Your task to perform on an android device: Go to Reddit.com Image 0: 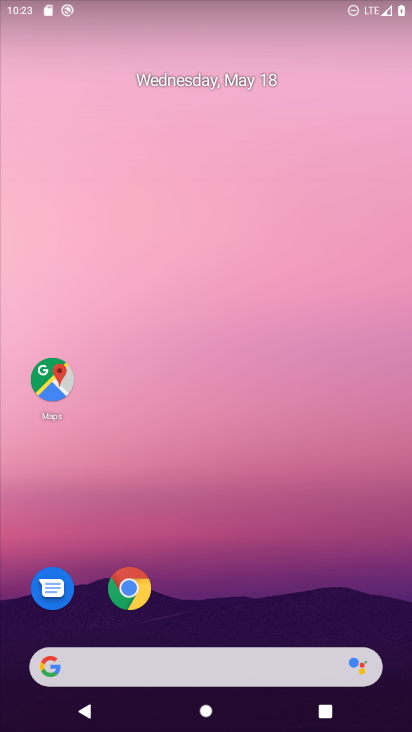
Step 0: click (136, 595)
Your task to perform on an android device: Go to Reddit.com Image 1: 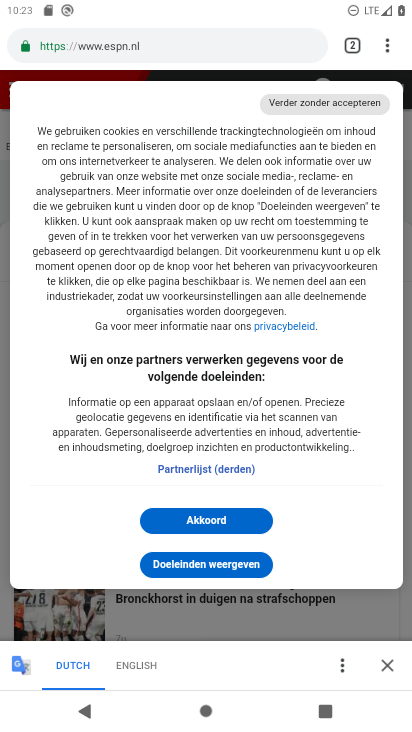
Step 1: click (128, 43)
Your task to perform on an android device: Go to Reddit.com Image 2: 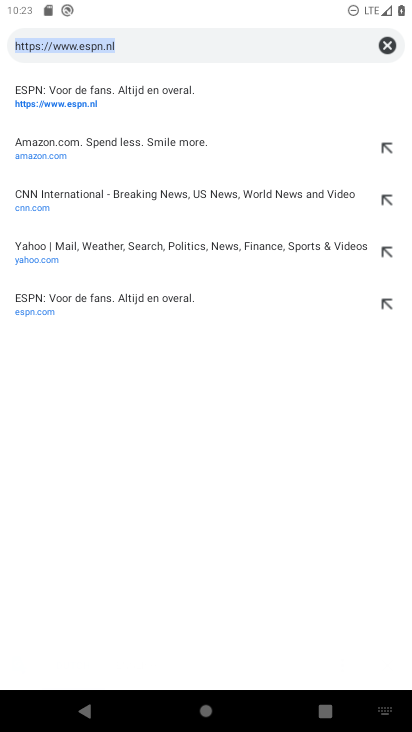
Step 2: click (383, 47)
Your task to perform on an android device: Go to Reddit.com Image 3: 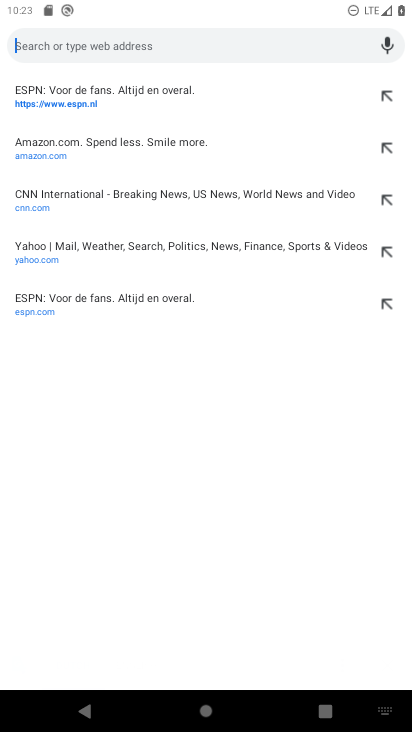
Step 3: click (55, 44)
Your task to perform on an android device: Go to Reddit.com Image 4: 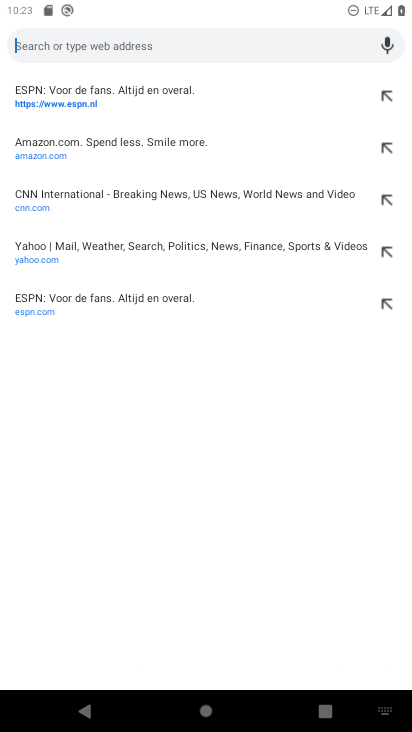
Step 4: type "reddit.com"
Your task to perform on an android device: Go to Reddit.com Image 5: 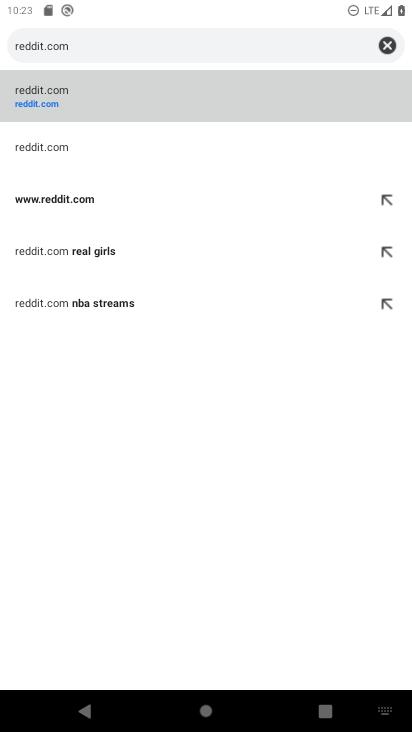
Step 5: click (33, 99)
Your task to perform on an android device: Go to Reddit.com Image 6: 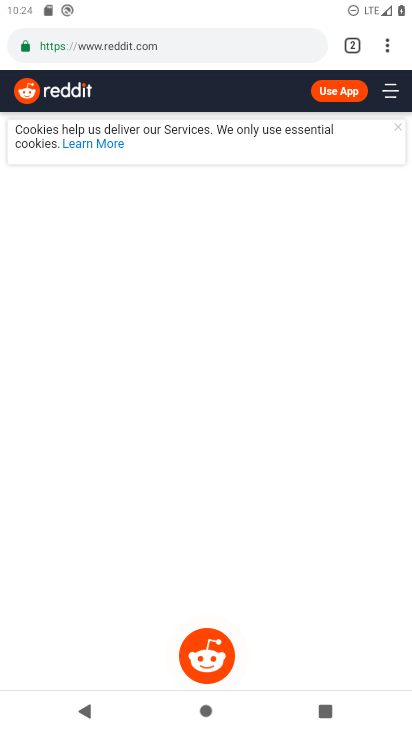
Step 6: task complete